Your task to perform on an android device: Check the news Image 0: 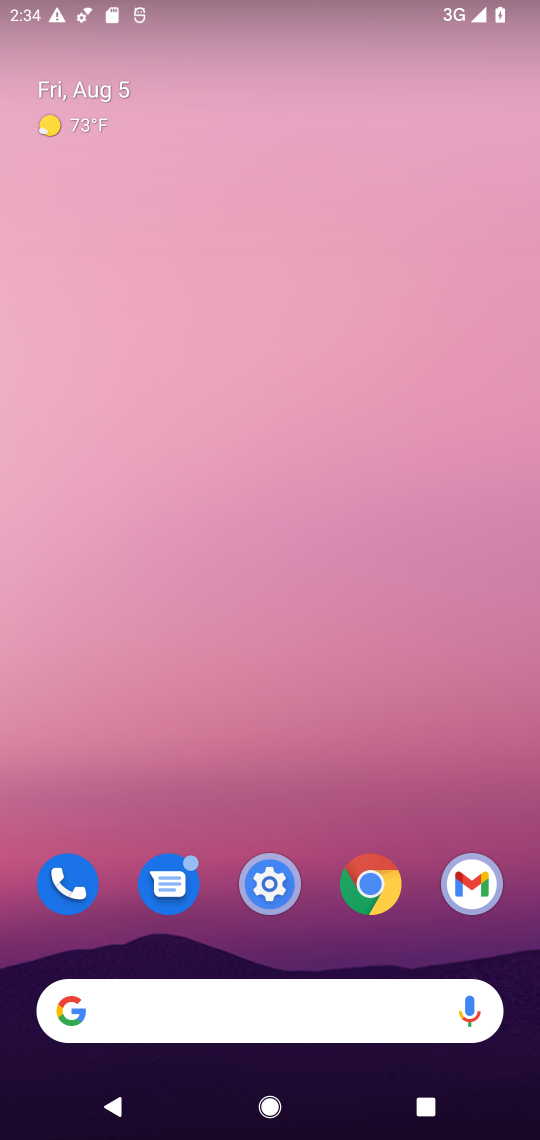
Step 0: drag from (437, 721) to (199, 3)
Your task to perform on an android device: Check the news Image 1: 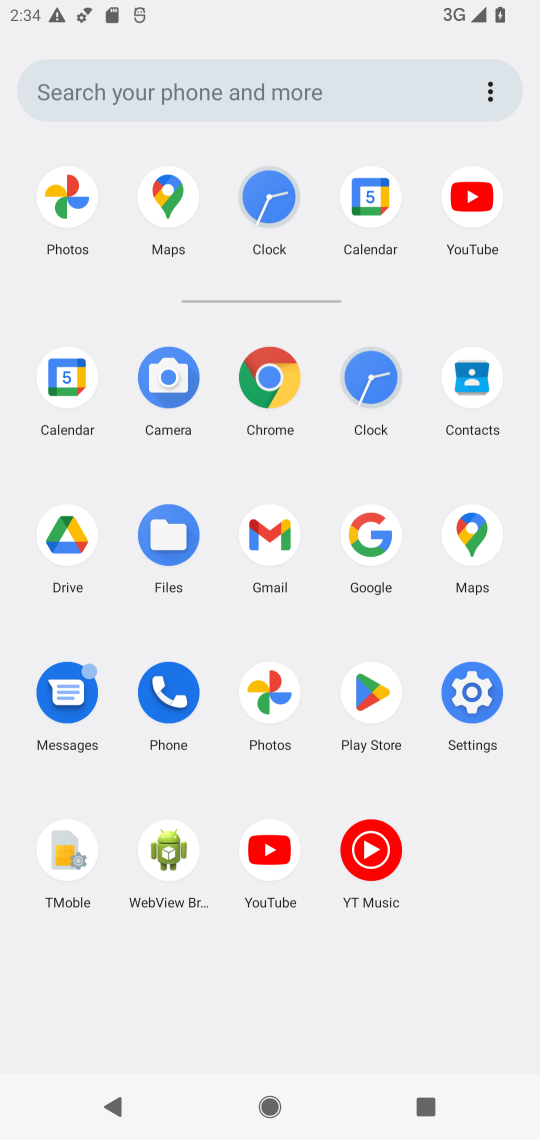
Step 1: click (372, 545)
Your task to perform on an android device: Check the news Image 2: 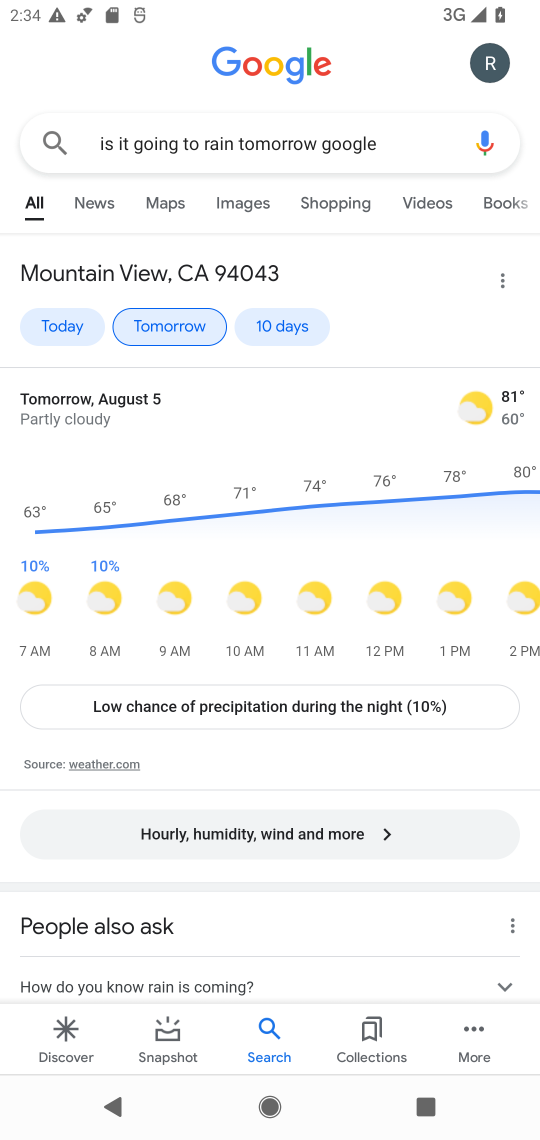
Step 2: press back button
Your task to perform on an android device: Check the news Image 3: 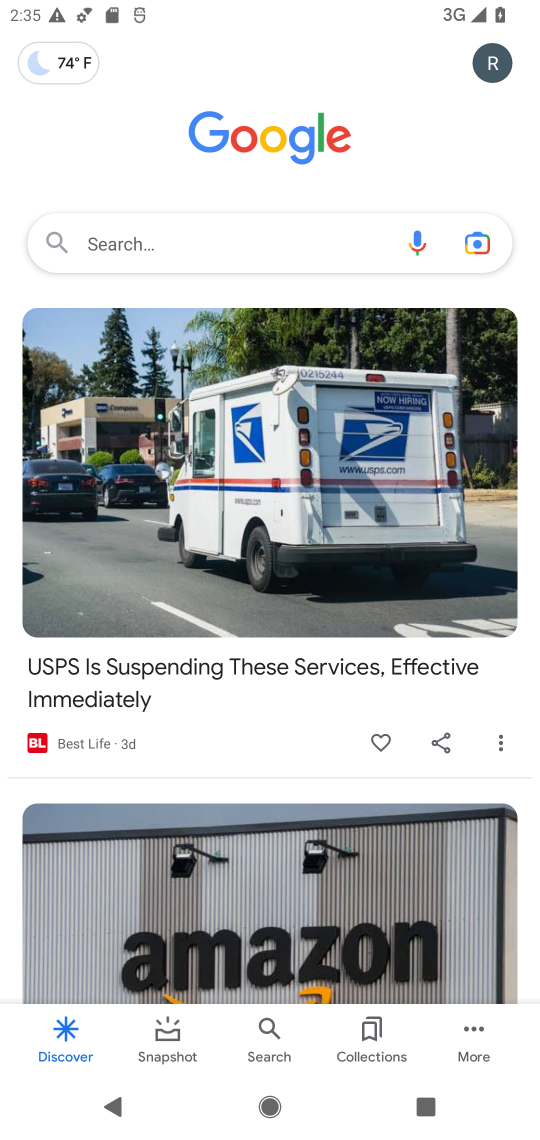
Step 3: click (121, 240)
Your task to perform on an android device: Check the news Image 4: 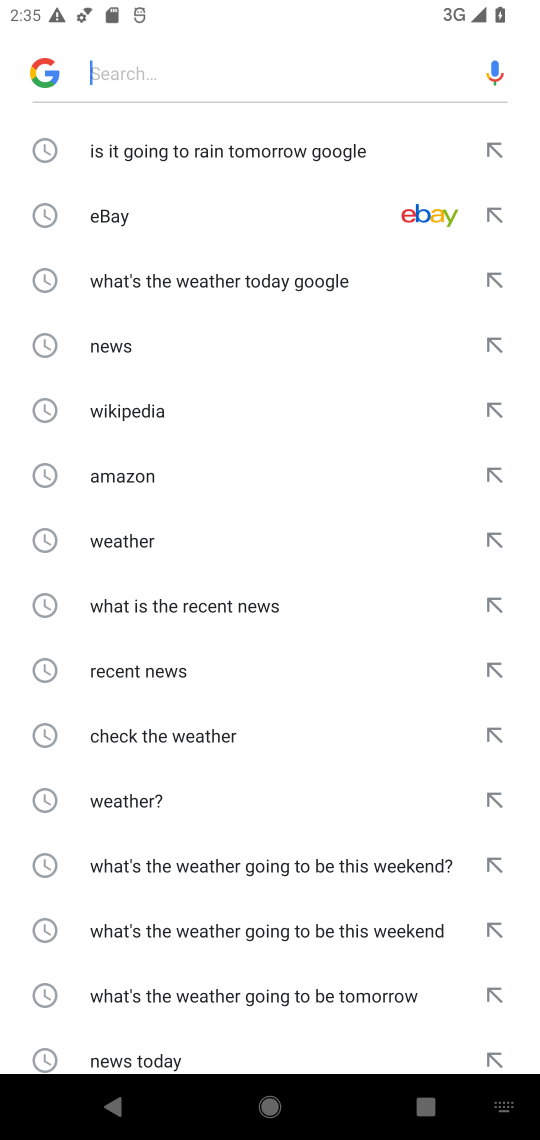
Step 4: click (122, 360)
Your task to perform on an android device: Check the news Image 5: 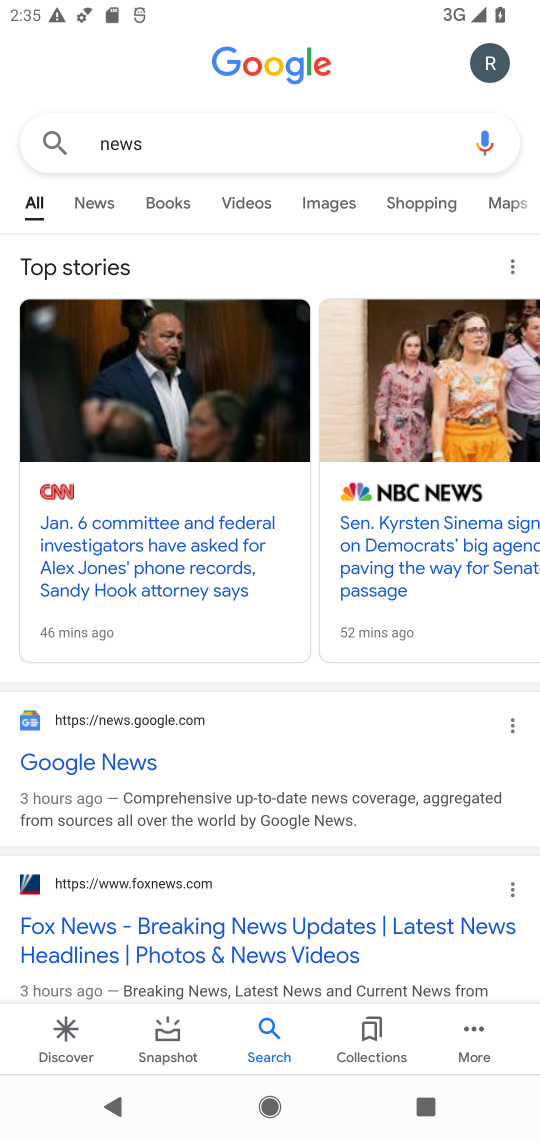
Step 5: task complete